Your task to perform on an android device: toggle translation in the chrome app Image 0: 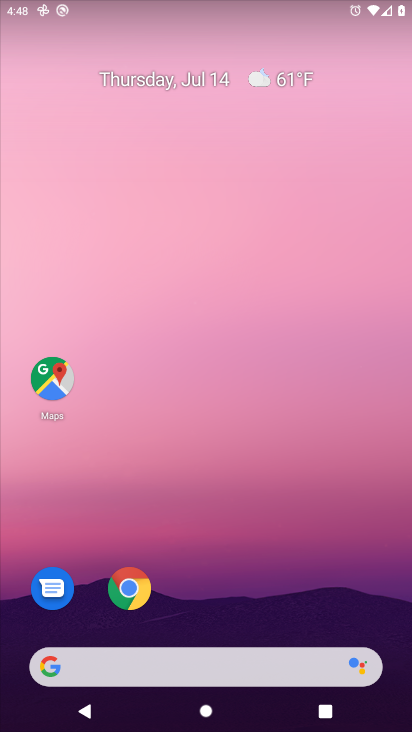
Step 0: press home button
Your task to perform on an android device: toggle translation in the chrome app Image 1: 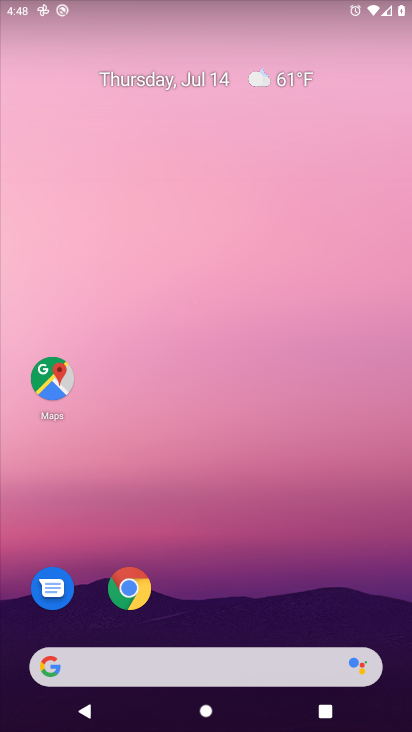
Step 1: drag from (241, 628) to (194, 38)
Your task to perform on an android device: toggle translation in the chrome app Image 2: 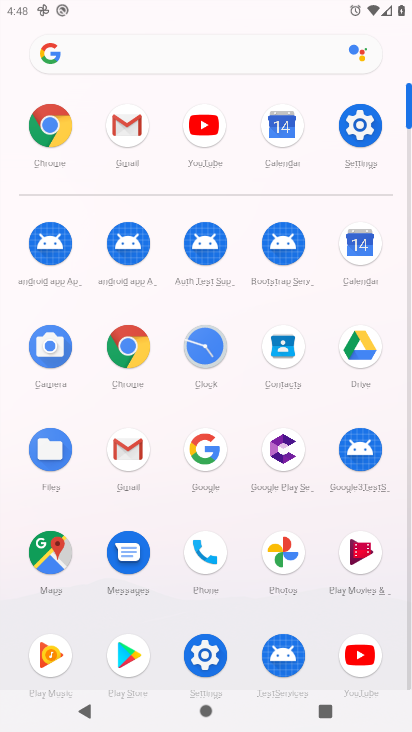
Step 2: click (54, 120)
Your task to perform on an android device: toggle translation in the chrome app Image 3: 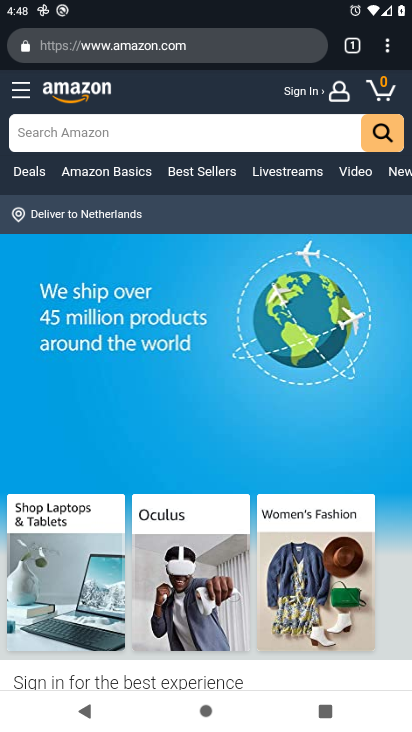
Step 3: drag from (381, 47) to (226, 549)
Your task to perform on an android device: toggle translation in the chrome app Image 4: 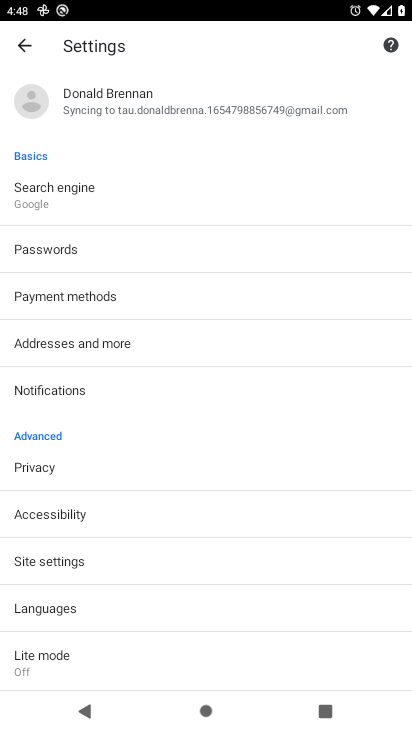
Step 4: click (50, 608)
Your task to perform on an android device: toggle translation in the chrome app Image 5: 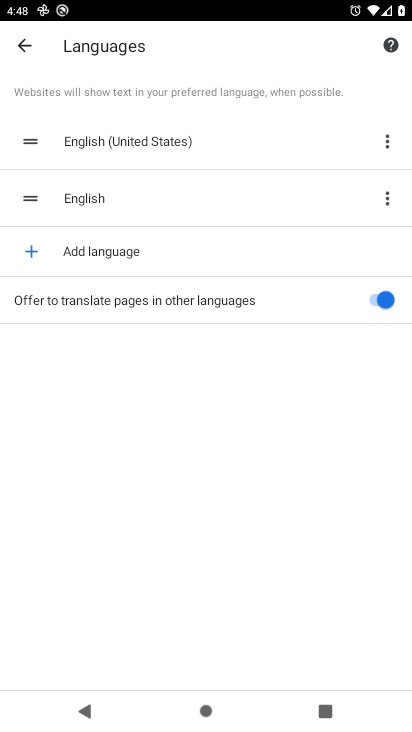
Step 5: click (380, 295)
Your task to perform on an android device: toggle translation in the chrome app Image 6: 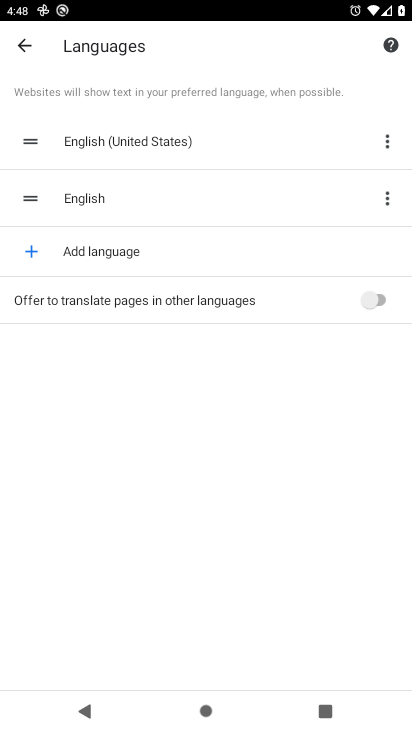
Step 6: task complete